Your task to perform on an android device: see tabs open on other devices in the chrome app Image 0: 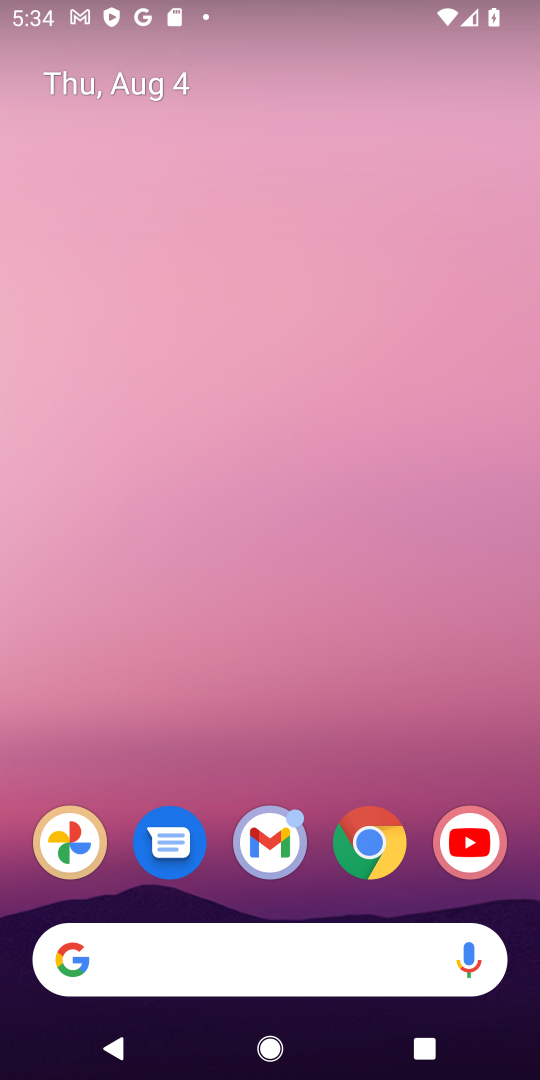
Step 0: drag from (355, 435) to (303, 16)
Your task to perform on an android device: see tabs open on other devices in the chrome app Image 1: 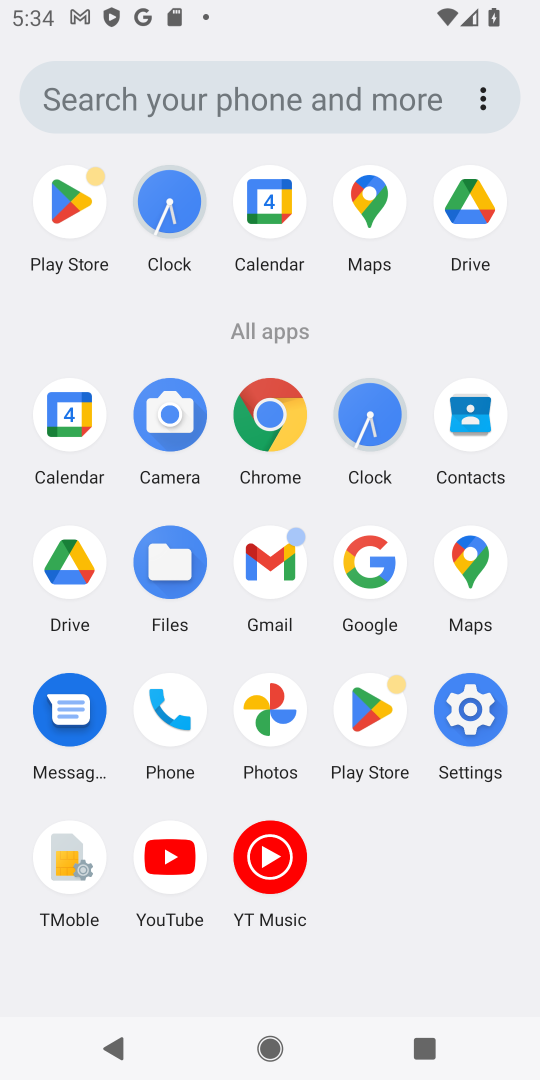
Step 1: click (276, 409)
Your task to perform on an android device: see tabs open on other devices in the chrome app Image 2: 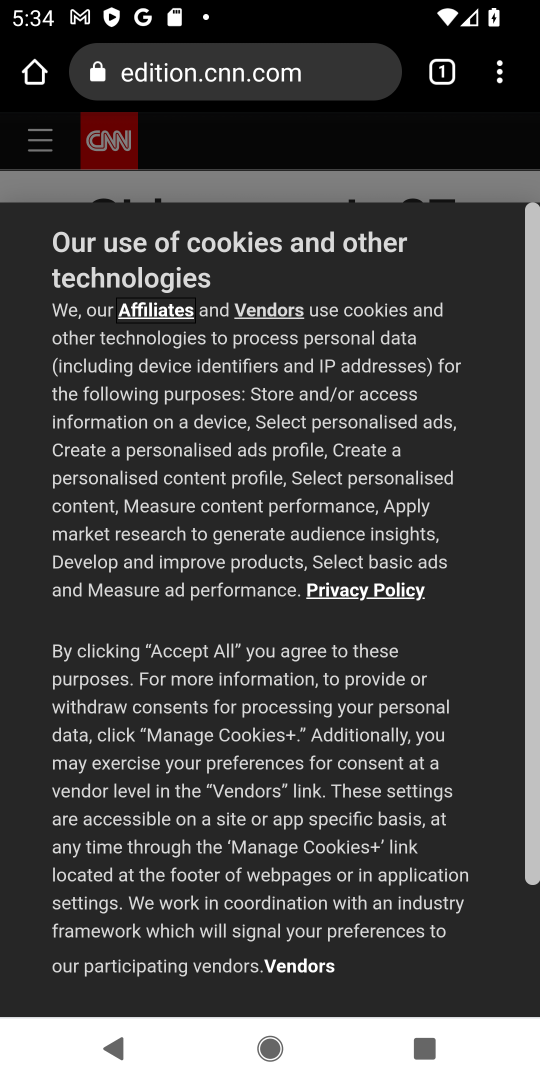
Step 2: task complete